Your task to perform on an android device: Toggle the flashlight Image 0: 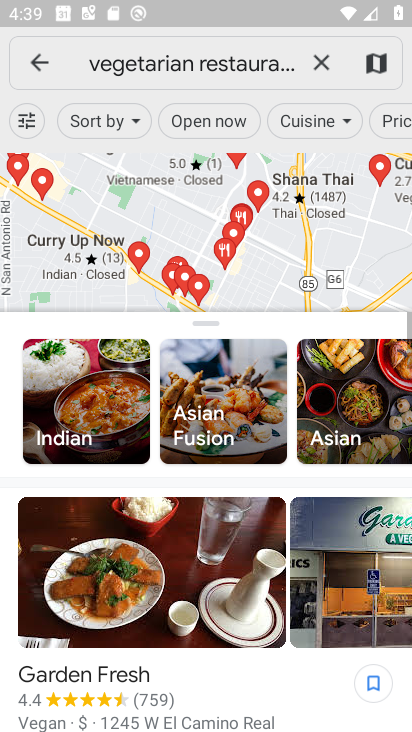
Step 0: press home button
Your task to perform on an android device: Toggle the flashlight Image 1: 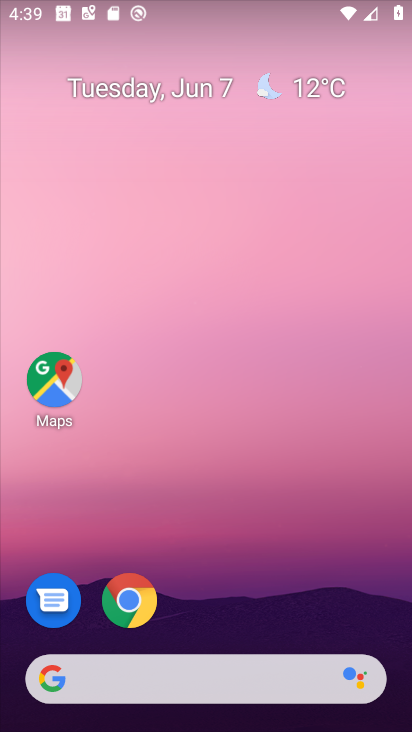
Step 1: drag from (315, 602) to (269, 156)
Your task to perform on an android device: Toggle the flashlight Image 2: 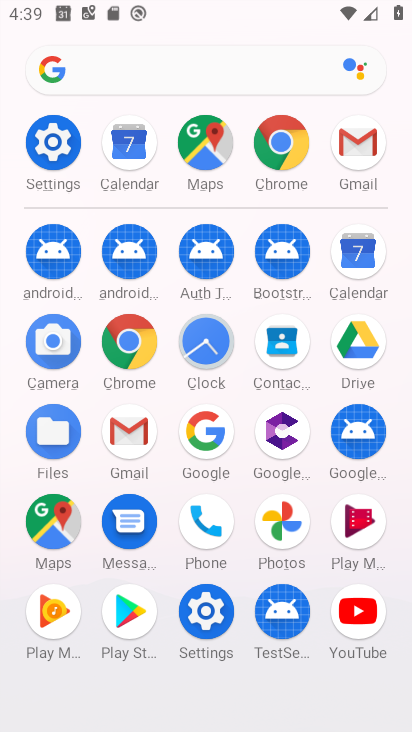
Step 2: click (59, 128)
Your task to perform on an android device: Toggle the flashlight Image 3: 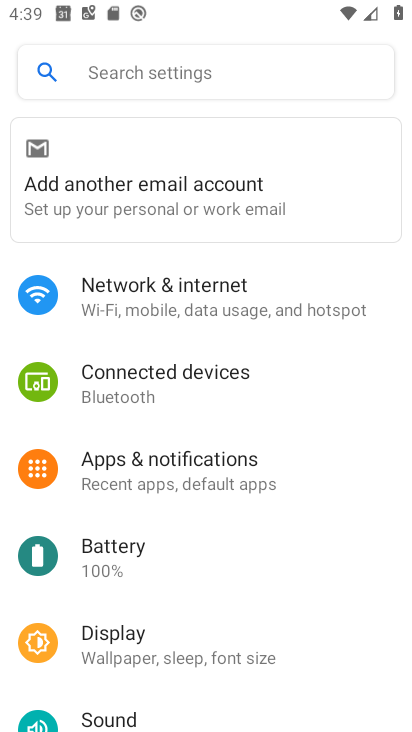
Step 3: drag from (216, 576) to (268, 224)
Your task to perform on an android device: Toggle the flashlight Image 4: 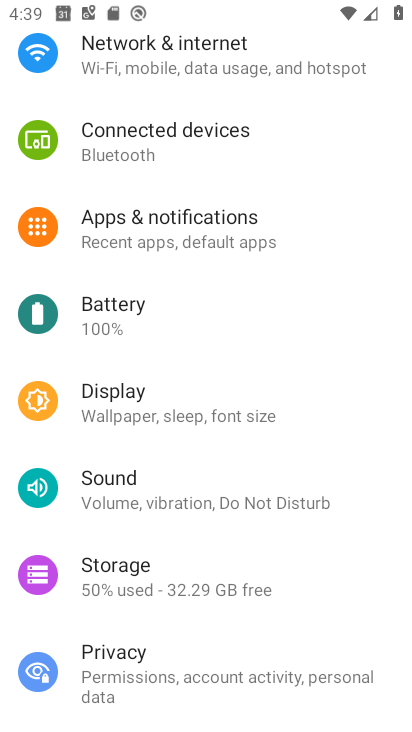
Step 4: click (159, 417)
Your task to perform on an android device: Toggle the flashlight Image 5: 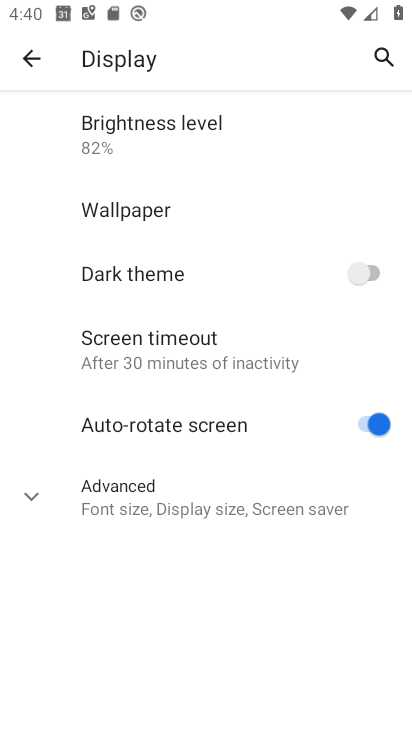
Step 5: task complete